Your task to perform on an android device: Open Maps and search for coffee Image 0: 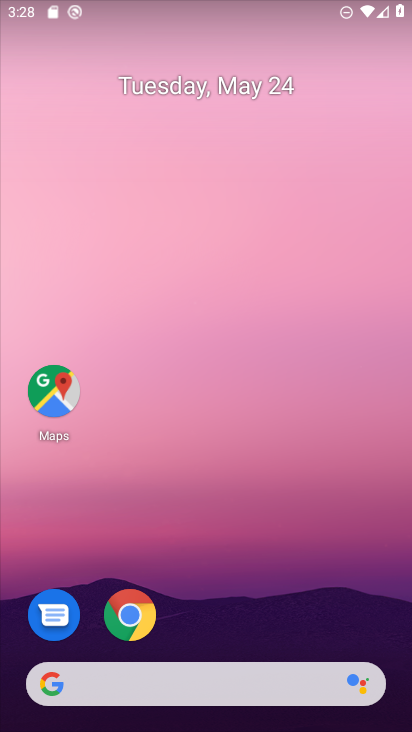
Step 0: click (235, 330)
Your task to perform on an android device: Open Maps and search for coffee Image 1: 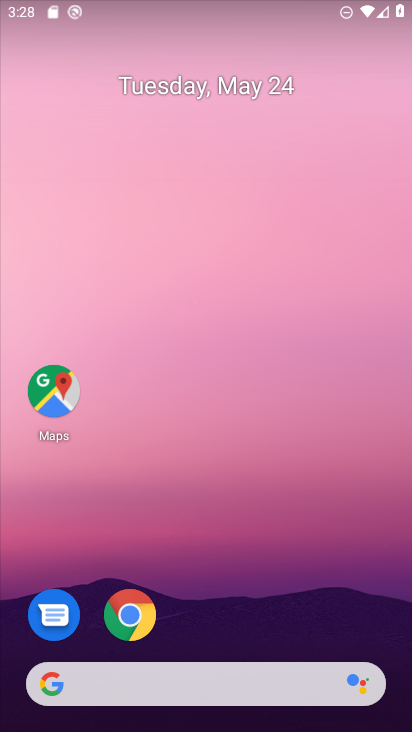
Step 1: drag from (217, 705) to (199, 368)
Your task to perform on an android device: Open Maps and search for coffee Image 2: 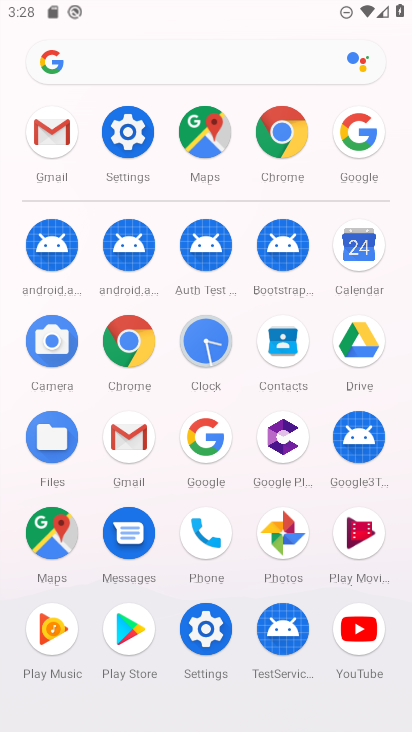
Step 2: click (63, 534)
Your task to perform on an android device: Open Maps and search for coffee Image 3: 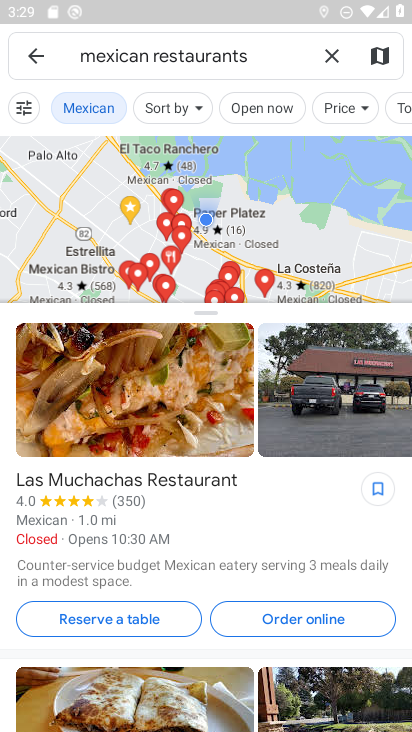
Step 3: click (338, 65)
Your task to perform on an android device: Open Maps and search for coffee Image 4: 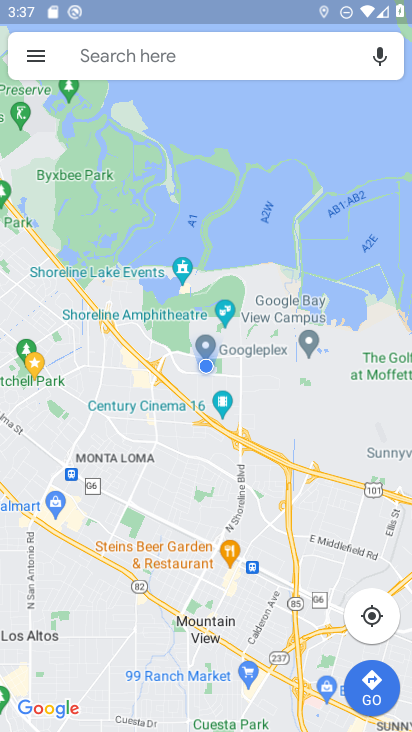
Step 4: click (235, 68)
Your task to perform on an android device: Open Maps and search for coffee Image 5: 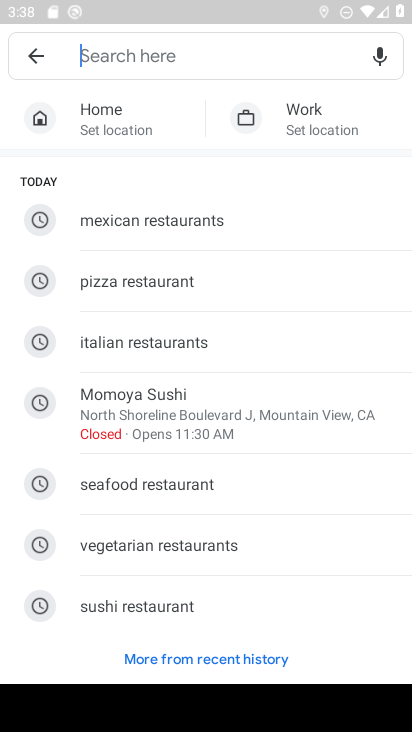
Step 5: drag from (143, 494) to (236, 247)
Your task to perform on an android device: Open Maps and search for coffee Image 6: 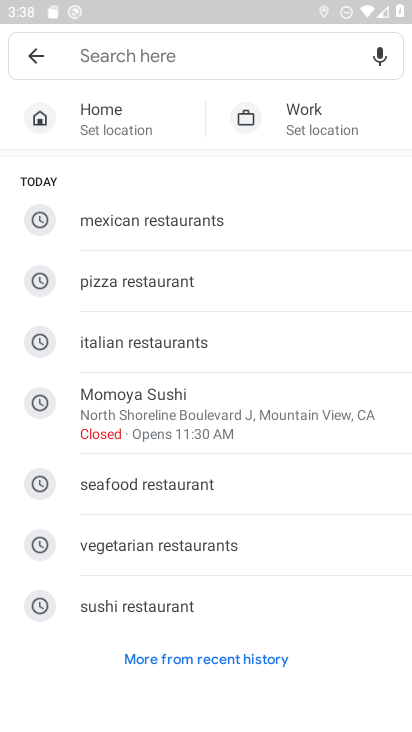
Step 6: click (160, 61)
Your task to perform on an android device: Open Maps and search for coffee Image 7: 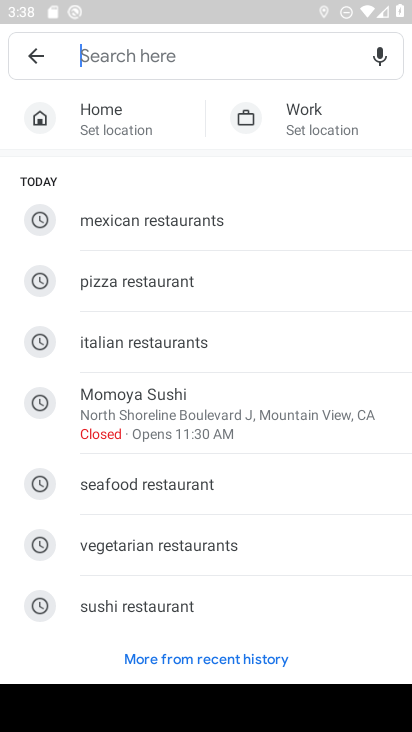
Step 7: type "coffee"
Your task to perform on an android device: Open Maps and search for coffee Image 8: 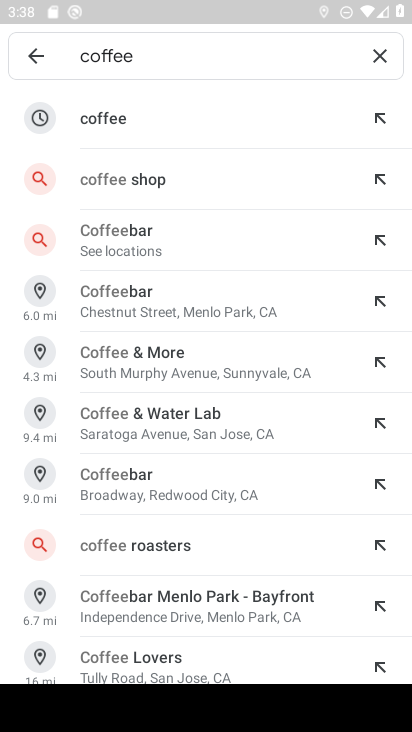
Step 8: click (258, 134)
Your task to perform on an android device: Open Maps and search for coffee Image 9: 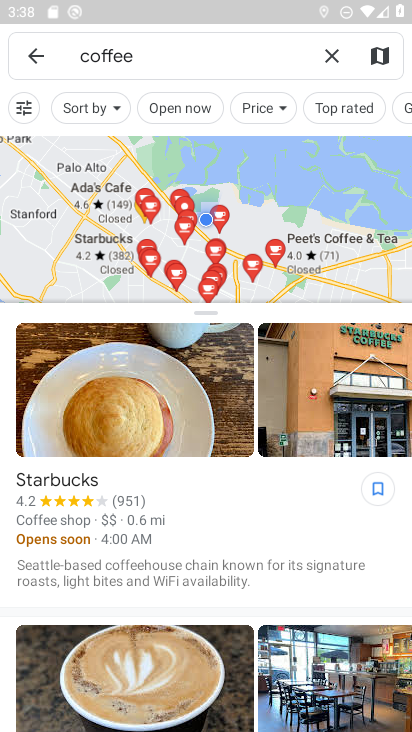
Step 9: task complete